Your task to perform on an android device: turn on javascript in the chrome app Image 0: 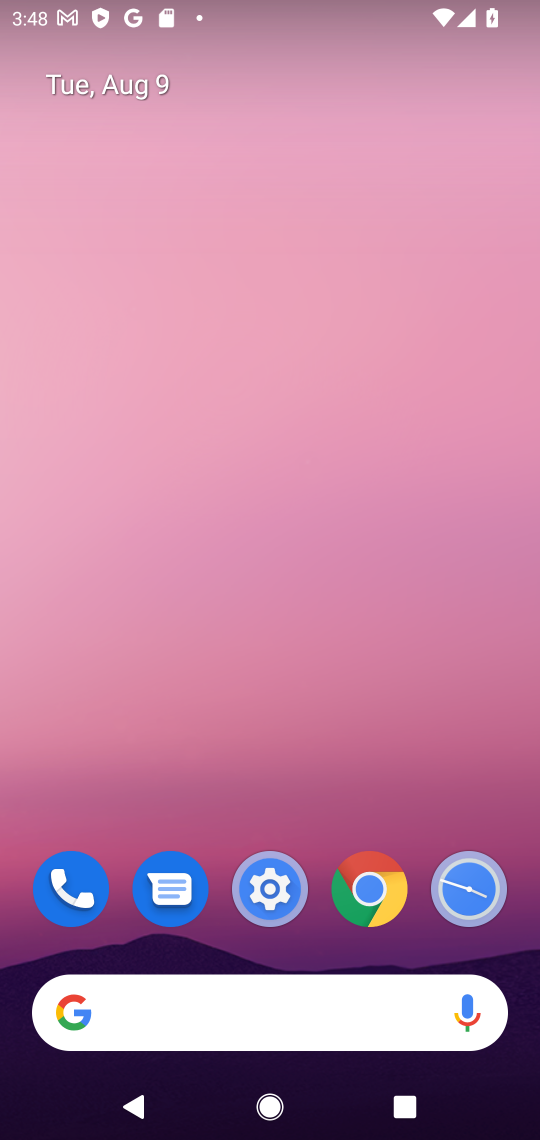
Step 0: click (372, 878)
Your task to perform on an android device: turn on javascript in the chrome app Image 1: 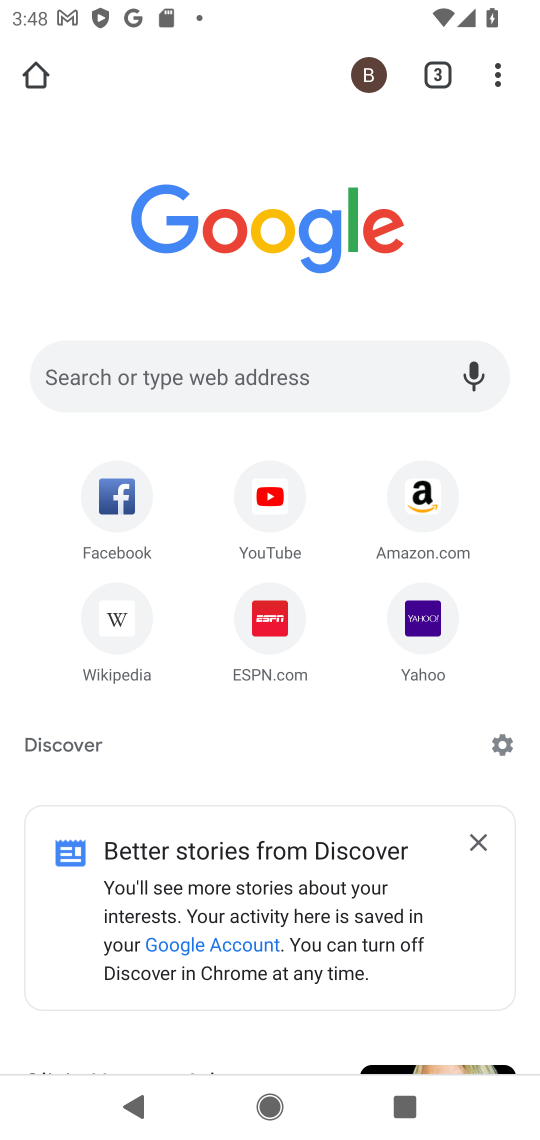
Step 1: click (500, 80)
Your task to perform on an android device: turn on javascript in the chrome app Image 2: 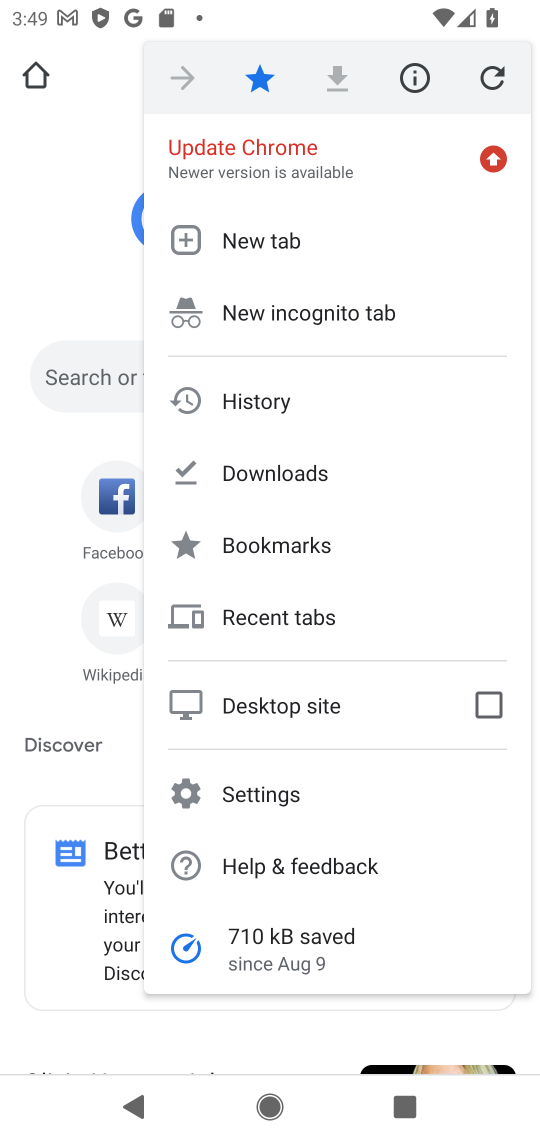
Step 2: click (290, 792)
Your task to perform on an android device: turn on javascript in the chrome app Image 3: 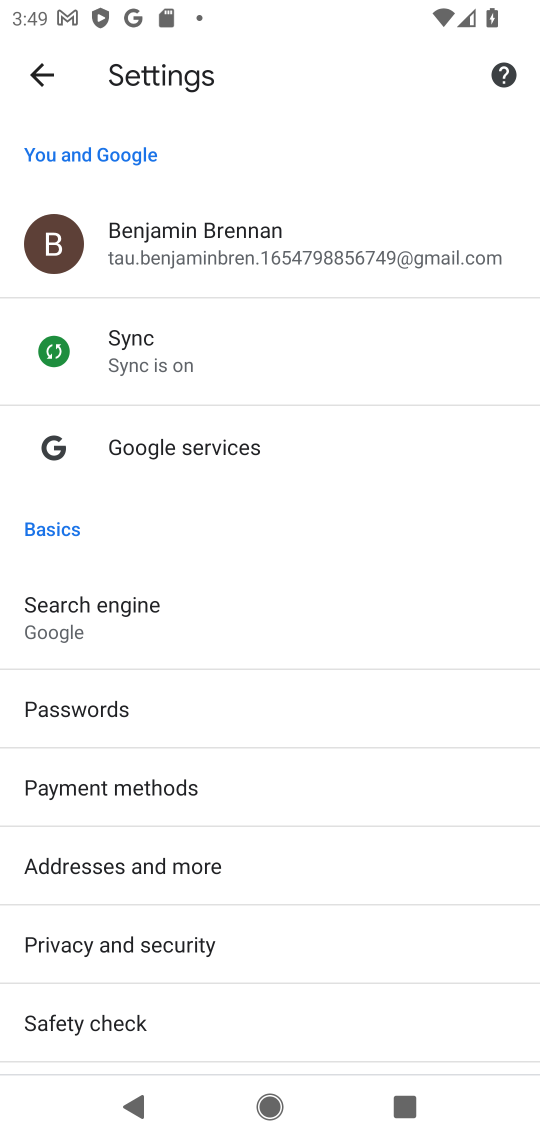
Step 3: drag from (308, 1005) to (361, 187)
Your task to perform on an android device: turn on javascript in the chrome app Image 4: 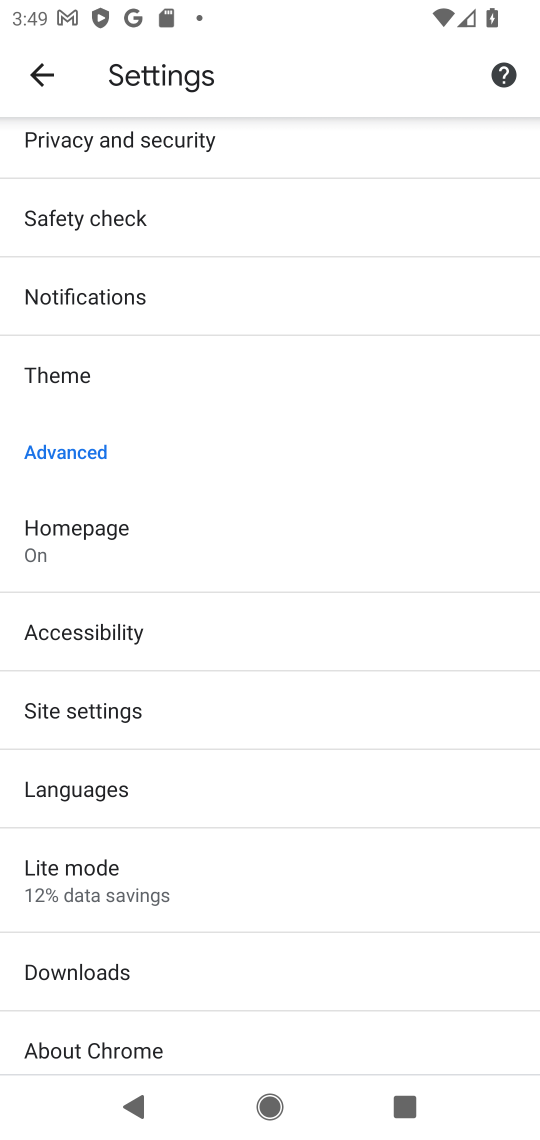
Step 4: click (295, 708)
Your task to perform on an android device: turn on javascript in the chrome app Image 5: 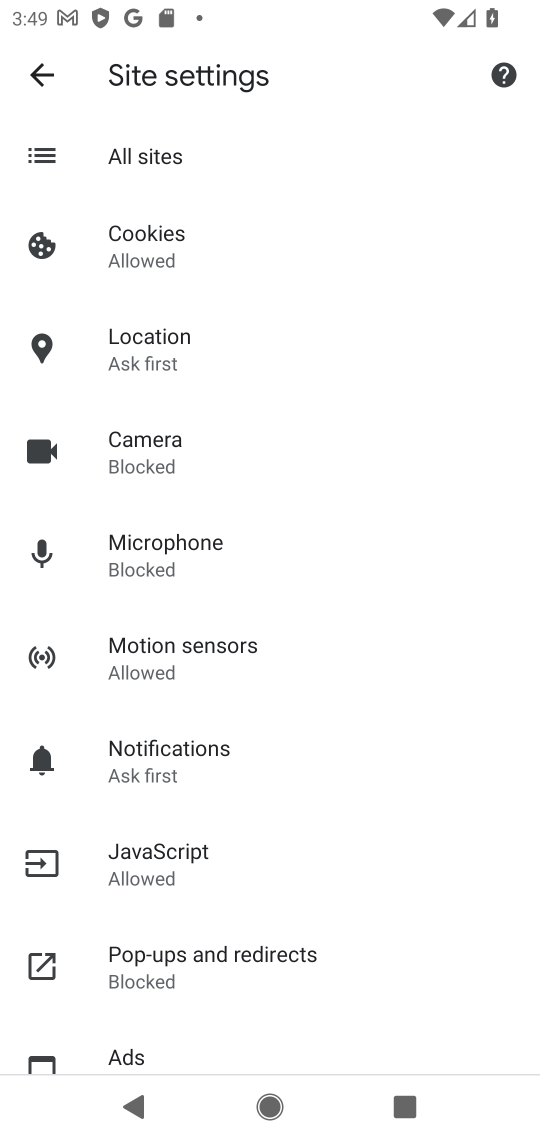
Step 5: click (234, 852)
Your task to perform on an android device: turn on javascript in the chrome app Image 6: 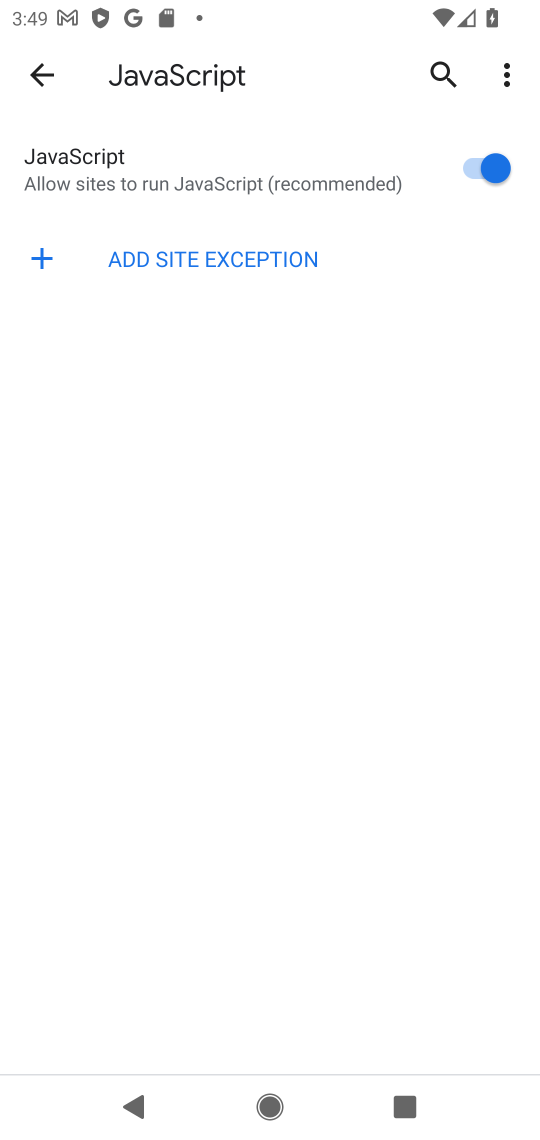
Step 6: task complete